Your task to perform on an android device: turn on wifi Image 0: 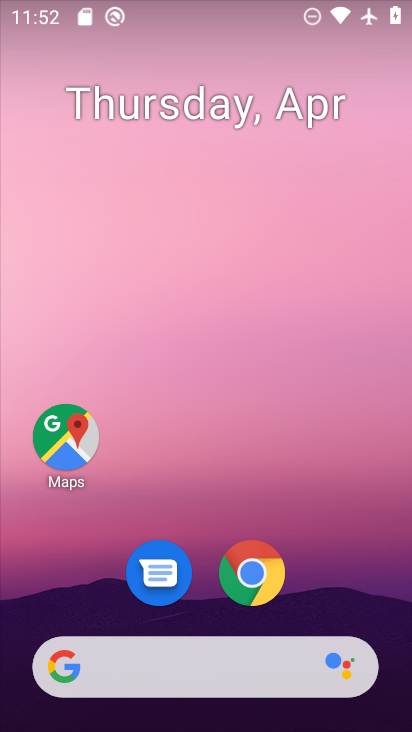
Step 0: drag from (405, 436) to (400, 106)
Your task to perform on an android device: turn on wifi Image 1: 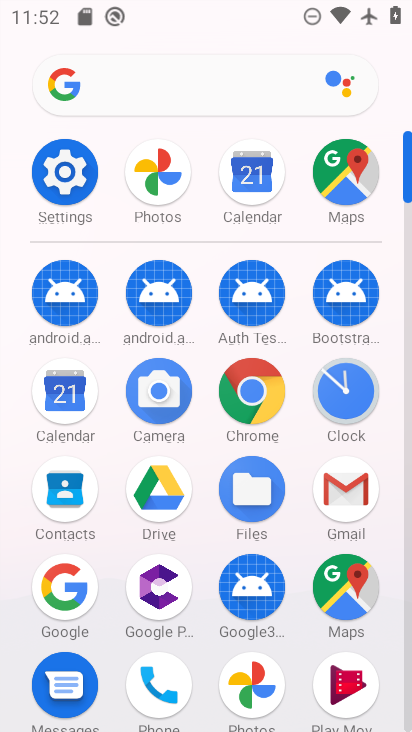
Step 1: click (62, 175)
Your task to perform on an android device: turn on wifi Image 2: 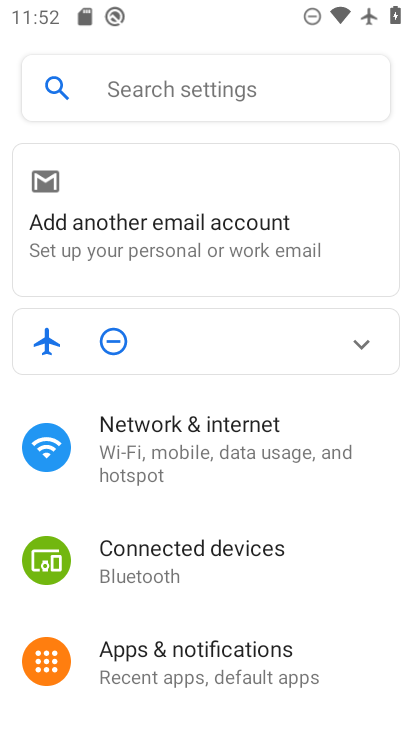
Step 2: click (290, 447)
Your task to perform on an android device: turn on wifi Image 3: 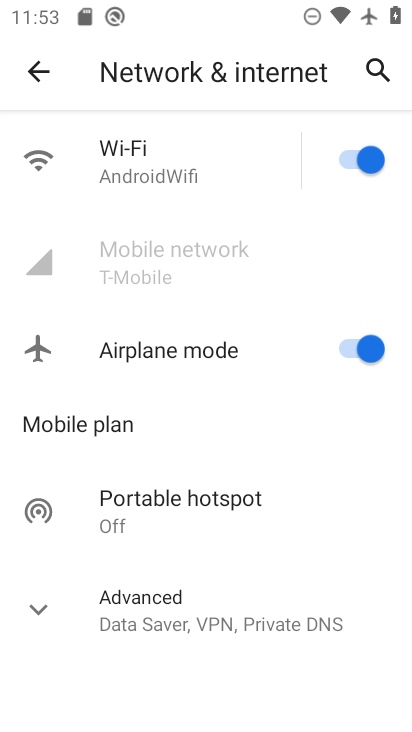
Step 3: task complete